Your task to perform on an android device: delete browsing data in the chrome app Image 0: 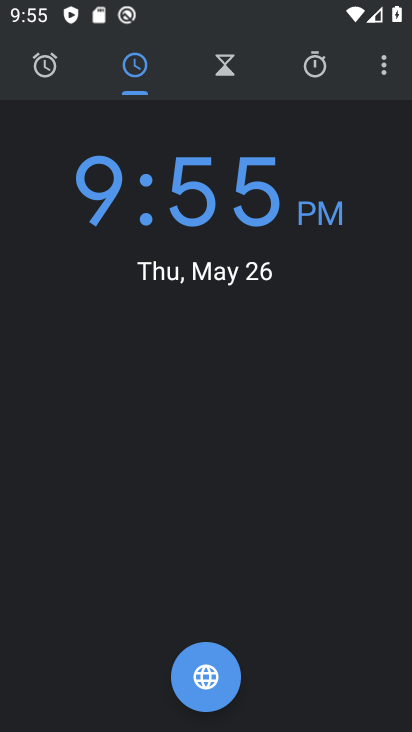
Step 0: press home button
Your task to perform on an android device: delete browsing data in the chrome app Image 1: 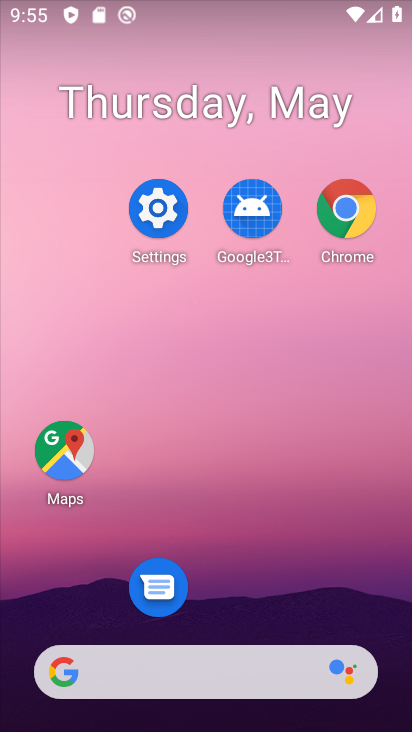
Step 1: click (326, 211)
Your task to perform on an android device: delete browsing data in the chrome app Image 2: 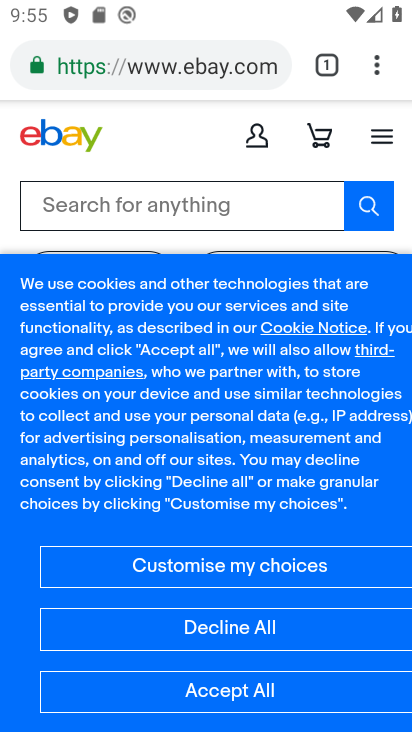
Step 2: click (375, 83)
Your task to perform on an android device: delete browsing data in the chrome app Image 3: 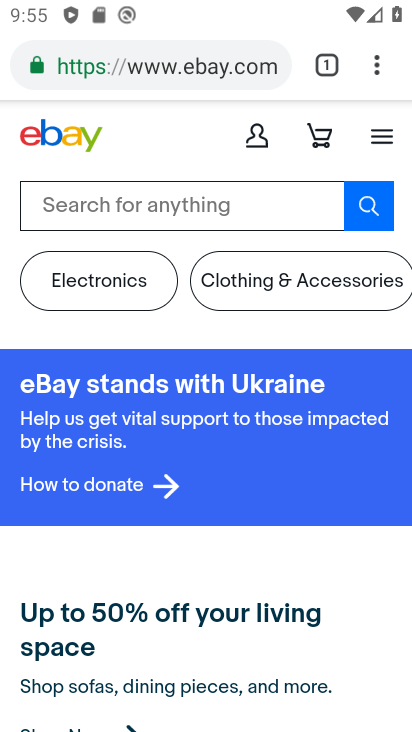
Step 3: click (376, 58)
Your task to perform on an android device: delete browsing data in the chrome app Image 4: 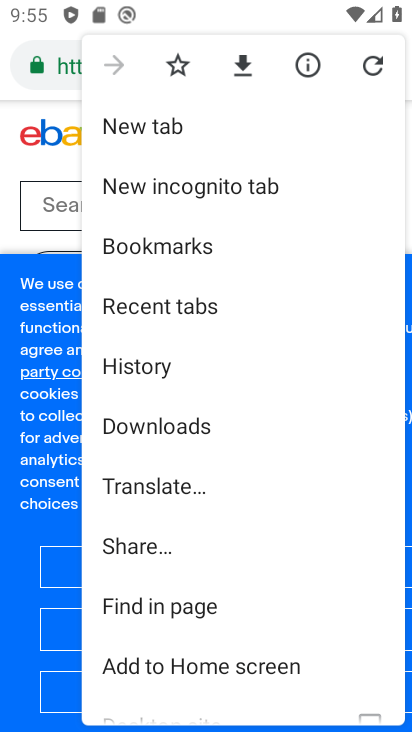
Step 4: click (145, 371)
Your task to perform on an android device: delete browsing data in the chrome app Image 5: 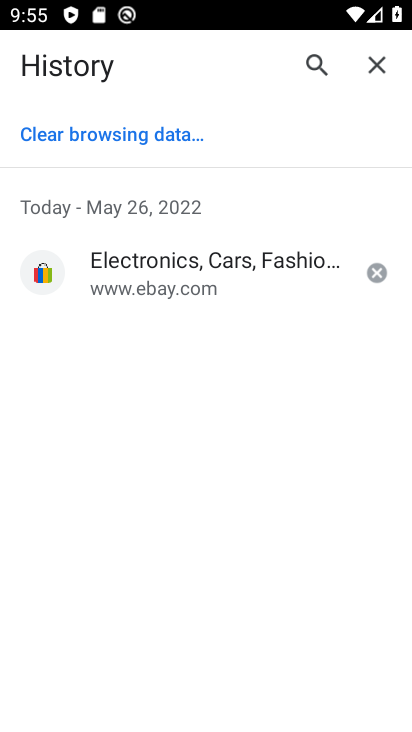
Step 5: click (71, 125)
Your task to perform on an android device: delete browsing data in the chrome app Image 6: 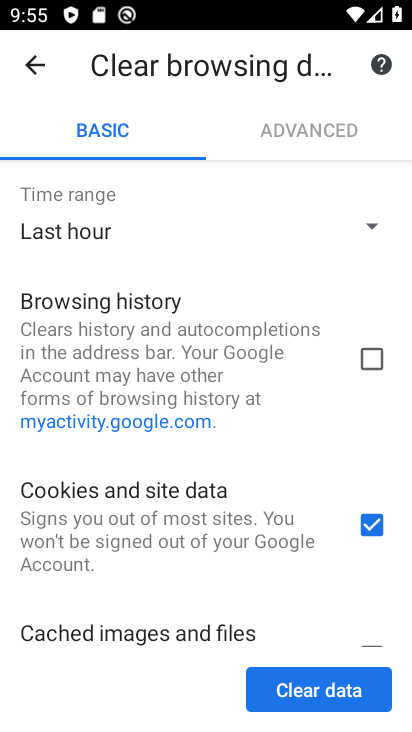
Step 6: click (367, 358)
Your task to perform on an android device: delete browsing data in the chrome app Image 7: 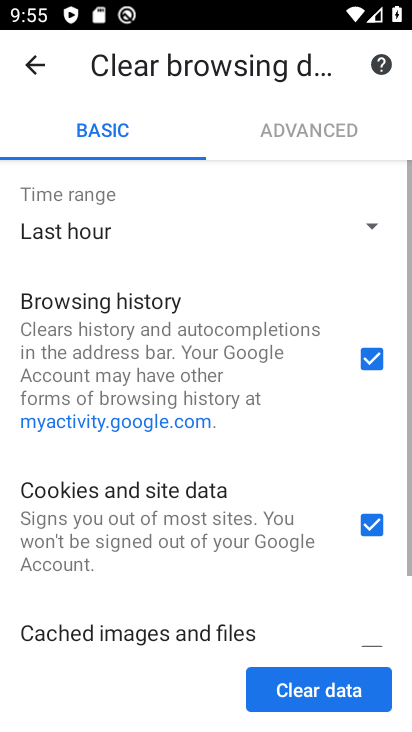
Step 7: drag from (307, 578) to (350, 312)
Your task to perform on an android device: delete browsing data in the chrome app Image 8: 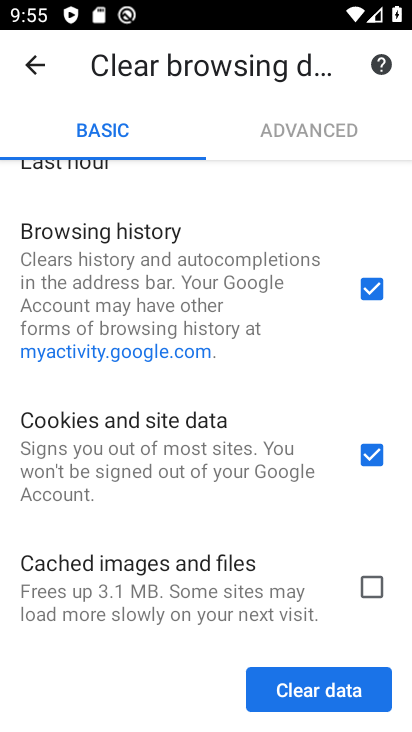
Step 8: click (363, 592)
Your task to perform on an android device: delete browsing data in the chrome app Image 9: 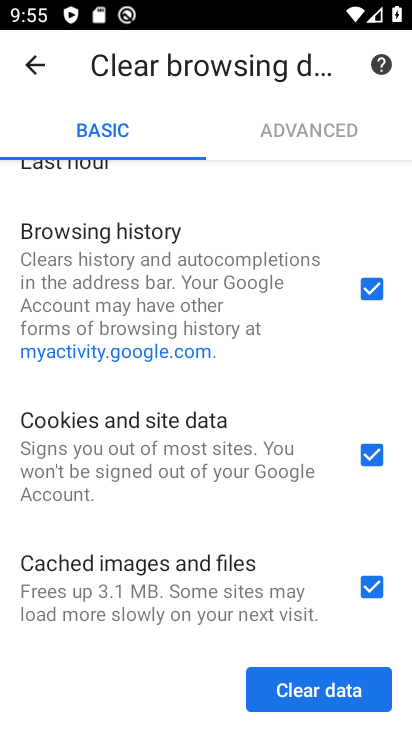
Step 9: click (305, 697)
Your task to perform on an android device: delete browsing data in the chrome app Image 10: 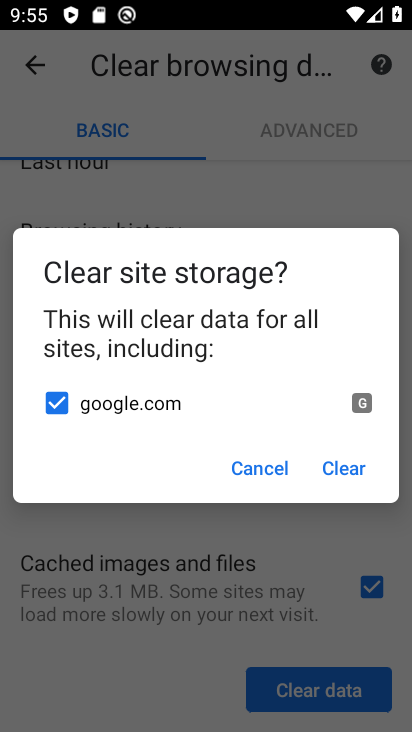
Step 10: click (318, 471)
Your task to perform on an android device: delete browsing data in the chrome app Image 11: 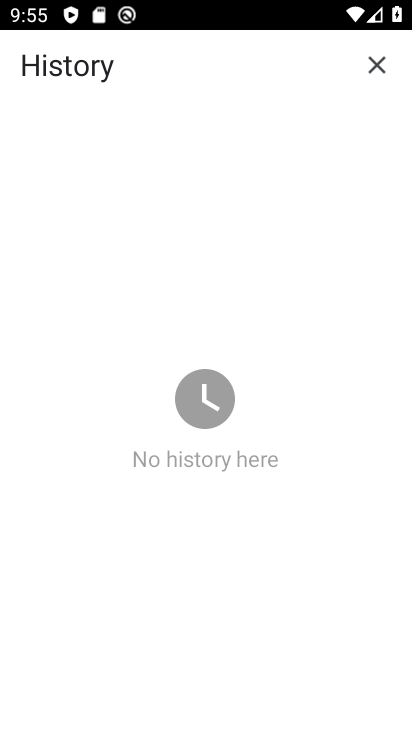
Step 11: task complete